Your task to perform on an android device: Toggle the flashlight Image 0: 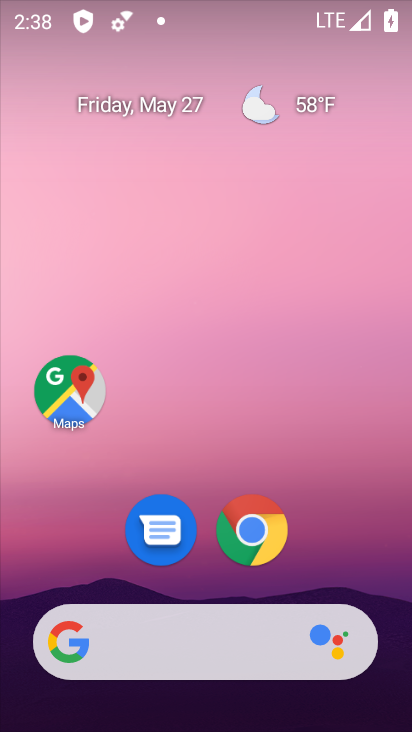
Step 0: drag from (345, 49) to (344, 628)
Your task to perform on an android device: Toggle the flashlight Image 1: 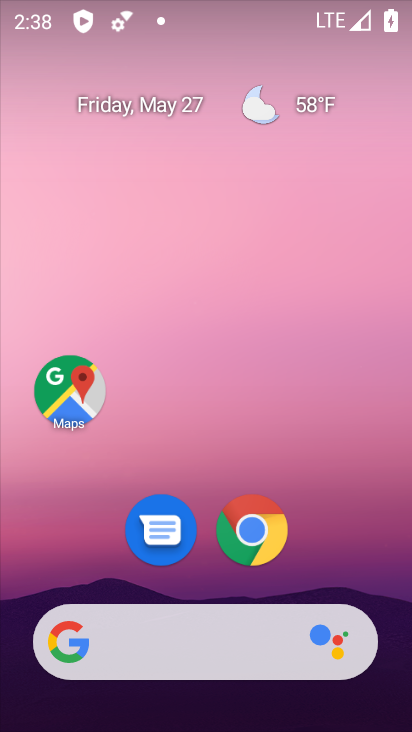
Step 1: task complete